Your task to perform on an android device: toggle priority inbox in the gmail app Image 0: 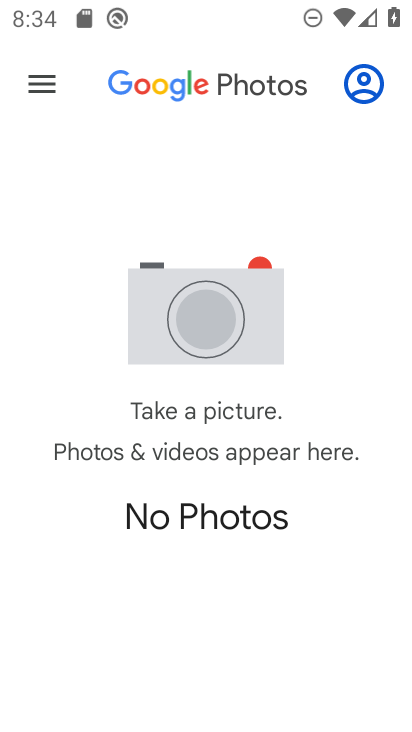
Step 0: press home button
Your task to perform on an android device: toggle priority inbox in the gmail app Image 1: 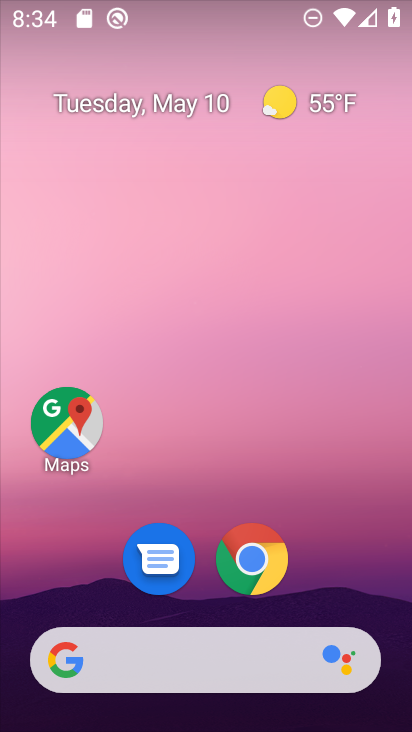
Step 1: drag from (192, 724) to (192, 95)
Your task to perform on an android device: toggle priority inbox in the gmail app Image 2: 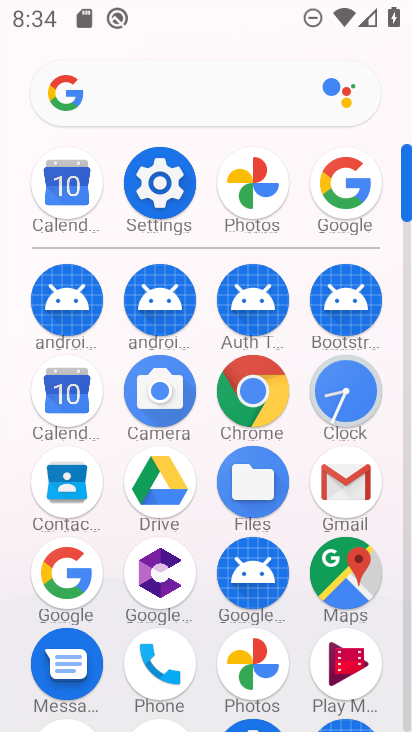
Step 2: click (347, 482)
Your task to perform on an android device: toggle priority inbox in the gmail app Image 3: 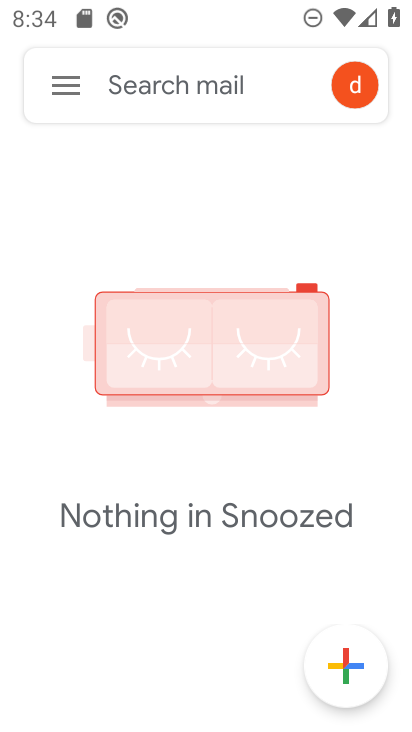
Step 3: click (63, 99)
Your task to perform on an android device: toggle priority inbox in the gmail app Image 4: 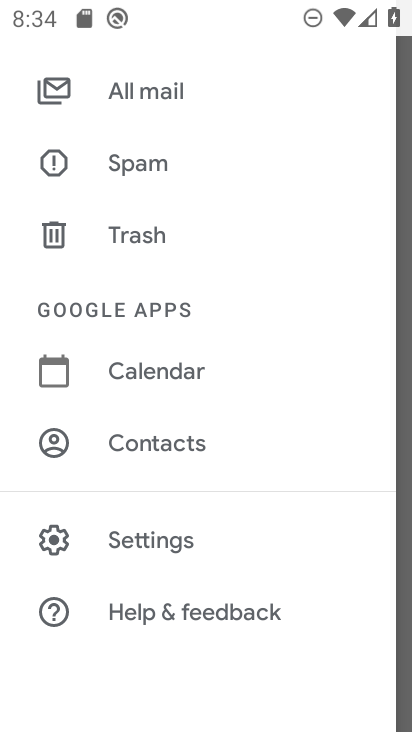
Step 4: click (148, 539)
Your task to perform on an android device: toggle priority inbox in the gmail app Image 5: 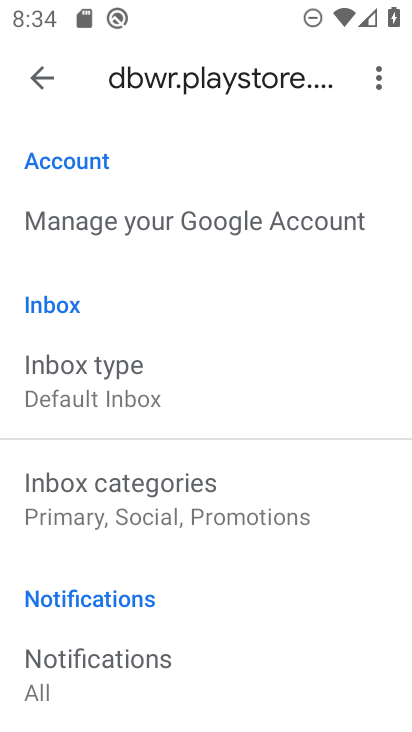
Step 5: drag from (157, 165) to (153, 412)
Your task to perform on an android device: toggle priority inbox in the gmail app Image 6: 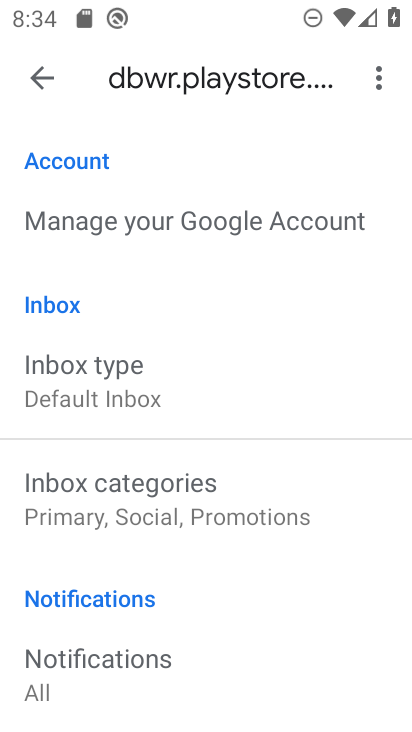
Step 6: click (92, 391)
Your task to perform on an android device: toggle priority inbox in the gmail app Image 7: 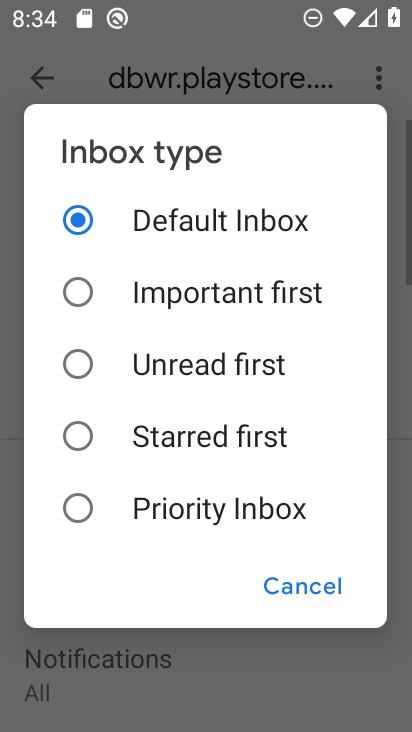
Step 7: click (78, 511)
Your task to perform on an android device: toggle priority inbox in the gmail app Image 8: 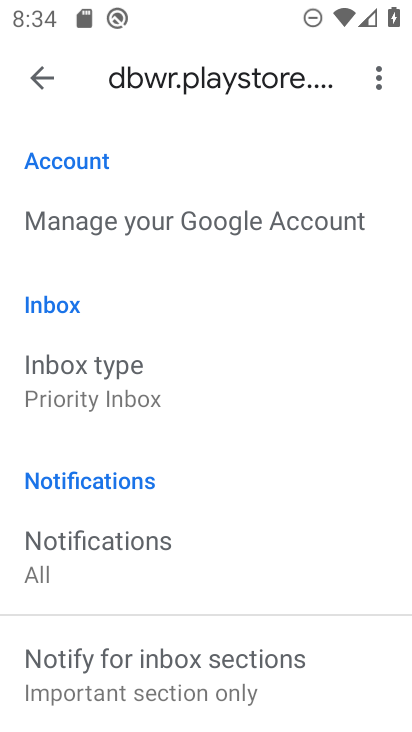
Step 8: task complete